Your task to perform on an android device: Open calendar and show me the third week of next month Image 0: 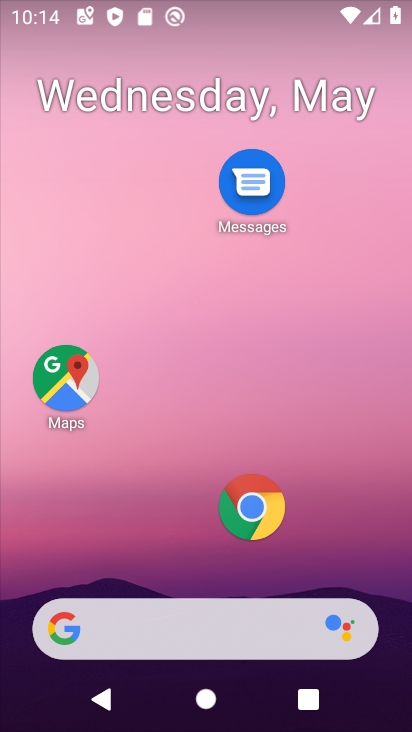
Step 0: press home button
Your task to perform on an android device: Open calendar and show me the third week of next month Image 1: 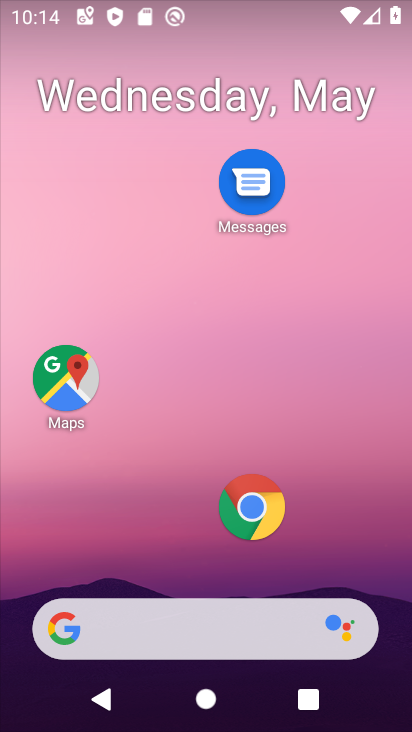
Step 1: drag from (213, 581) to (249, 94)
Your task to perform on an android device: Open calendar and show me the third week of next month Image 2: 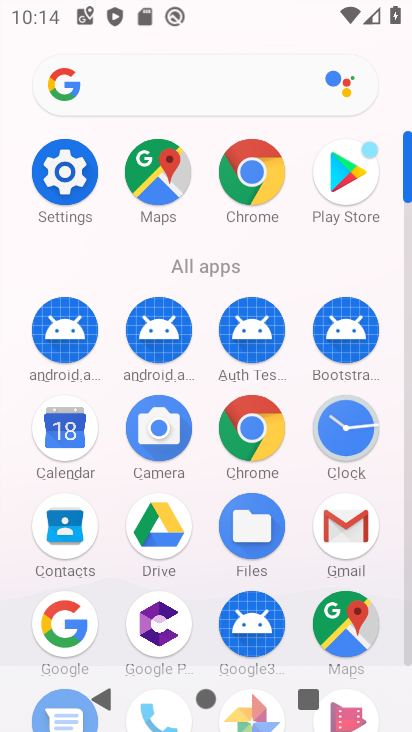
Step 2: click (63, 423)
Your task to perform on an android device: Open calendar and show me the third week of next month Image 3: 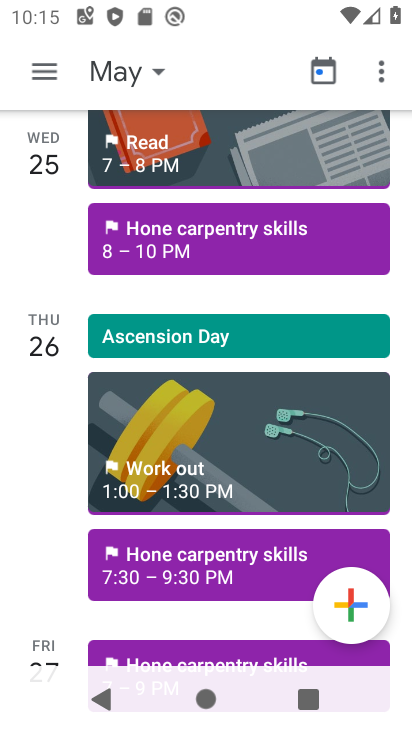
Step 3: drag from (42, 549) to (70, 187)
Your task to perform on an android device: Open calendar and show me the third week of next month Image 4: 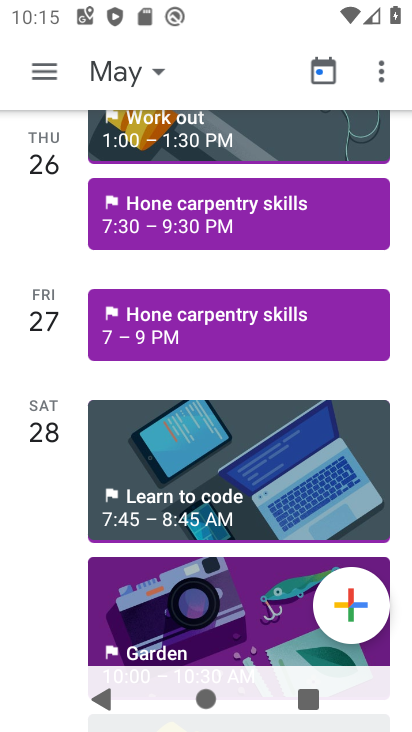
Step 4: drag from (64, 562) to (92, 251)
Your task to perform on an android device: Open calendar and show me the third week of next month Image 5: 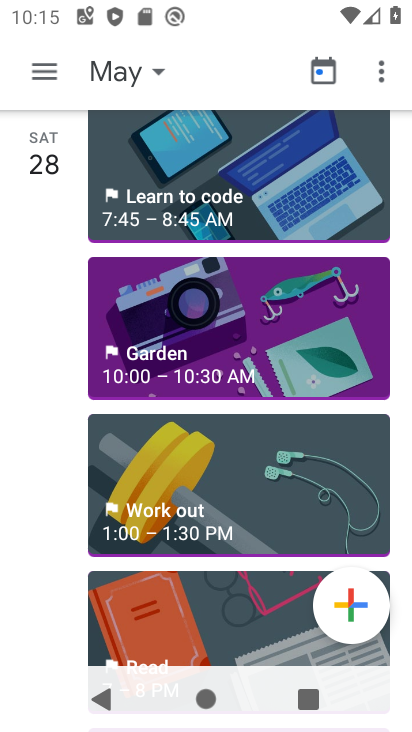
Step 5: click (154, 68)
Your task to perform on an android device: Open calendar and show me the third week of next month Image 6: 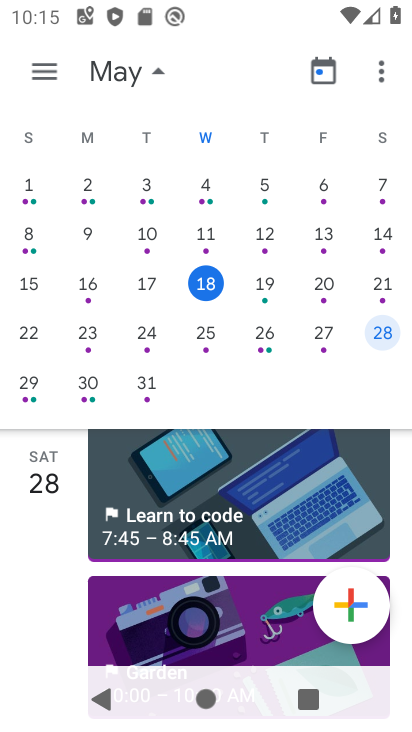
Step 6: drag from (373, 265) to (20, 270)
Your task to perform on an android device: Open calendar and show me the third week of next month Image 7: 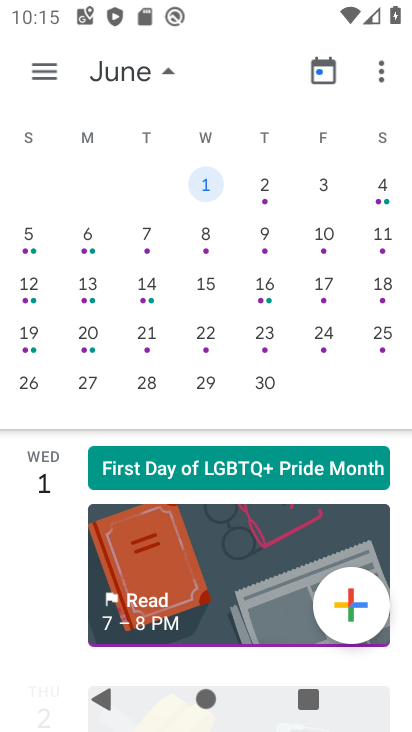
Step 7: drag from (376, 262) to (49, 258)
Your task to perform on an android device: Open calendar and show me the third week of next month Image 8: 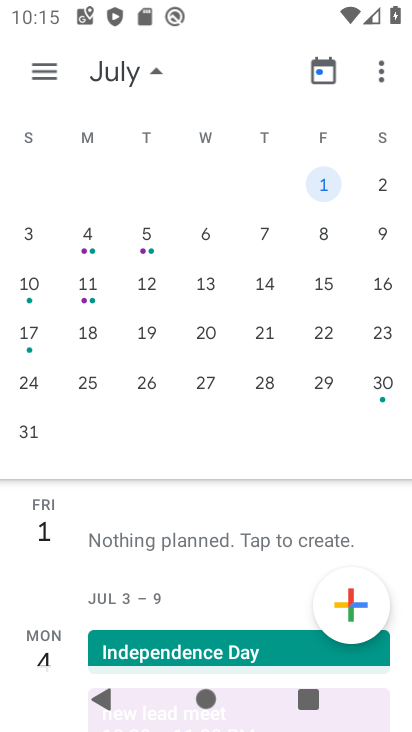
Step 8: drag from (21, 252) to (366, 265)
Your task to perform on an android device: Open calendar and show me the third week of next month Image 9: 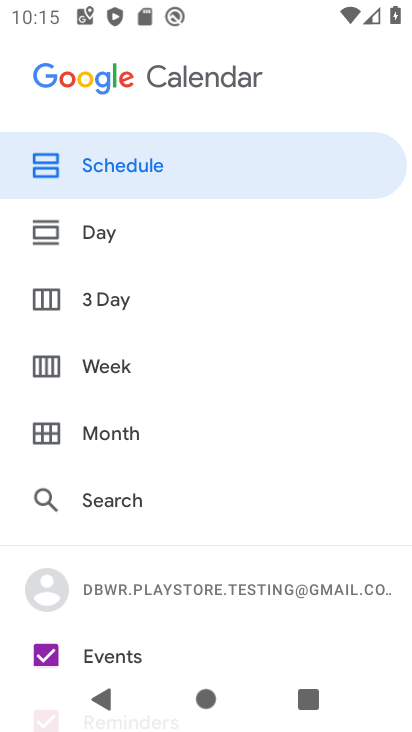
Step 9: press back button
Your task to perform on an android device: Open calendar and show me the third week of next month Image 10: 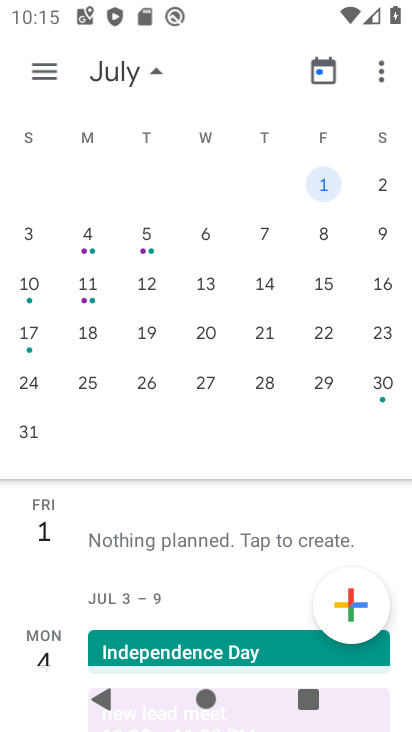
Step 10: drag from (81, 337) to (406, 333)
Your task to perform on an android device: Open calendar and show me the third week of next month Image 11: 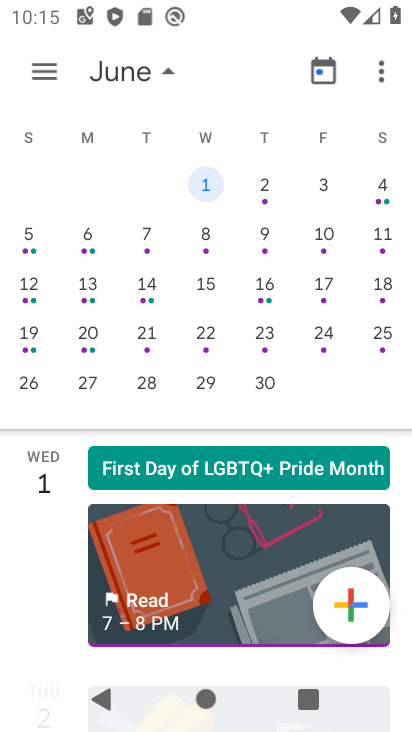
Step 11: click (29, 285)
Your task to perform on an android device: Open calendar and show me the third week of next month Image 12: 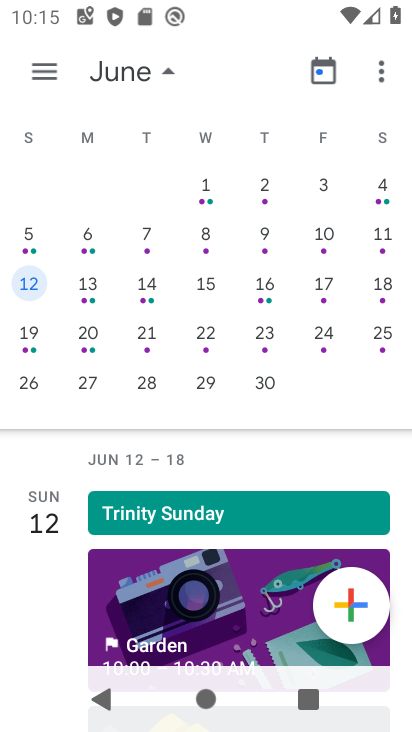
Step 12: click (165, 67)
Your task to perform on an android device: Open calendar and show me the third week of next month Image 13: 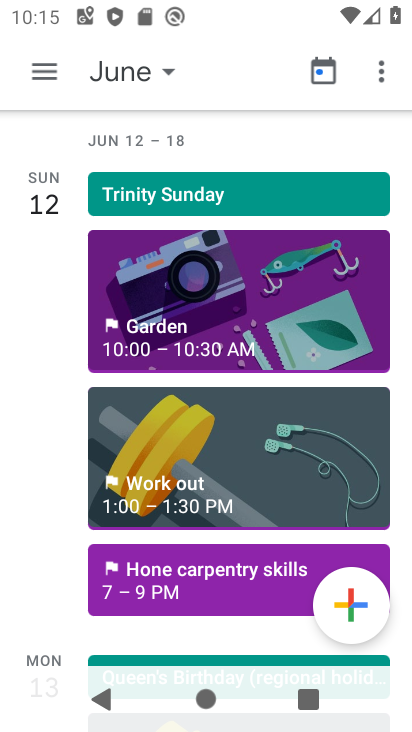
Step 13: task complete